Your task to perform on an android device: What's the weather? Image 0: 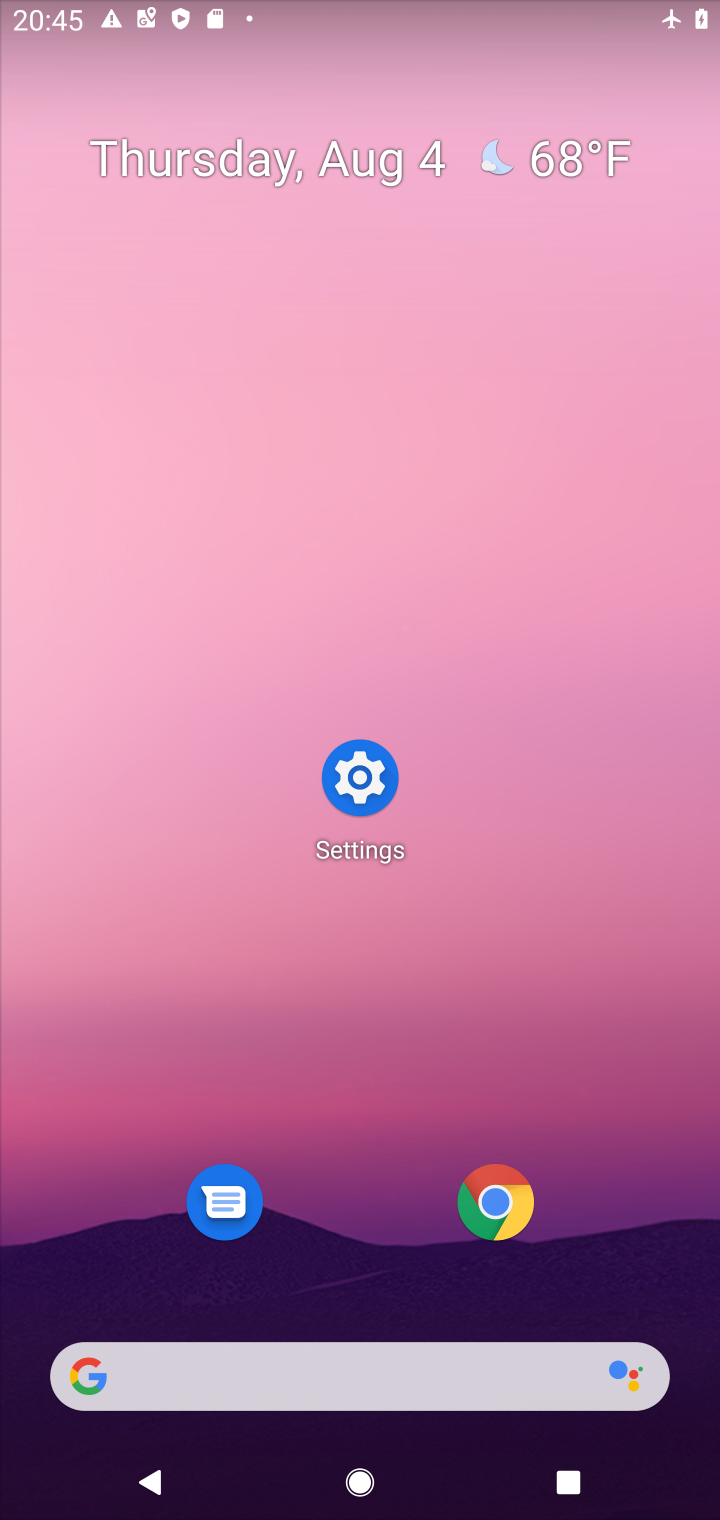
Step 0: drag from (363, 1255) to (398, 358)
Your task to perform on an android device: What's the weather? Image 1: 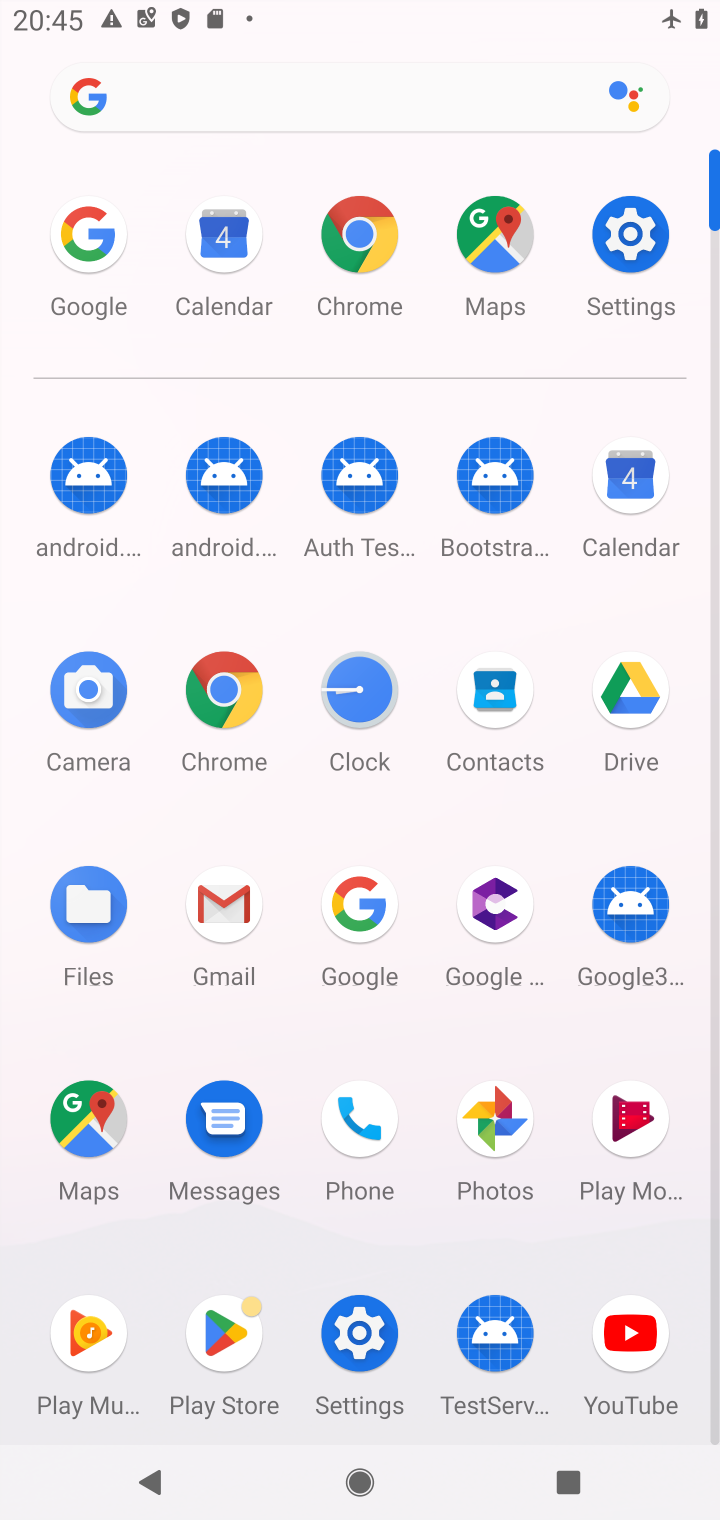
Step 1: click (372, 897)
Your task to perform on an android device: What's the weather? Image 2: 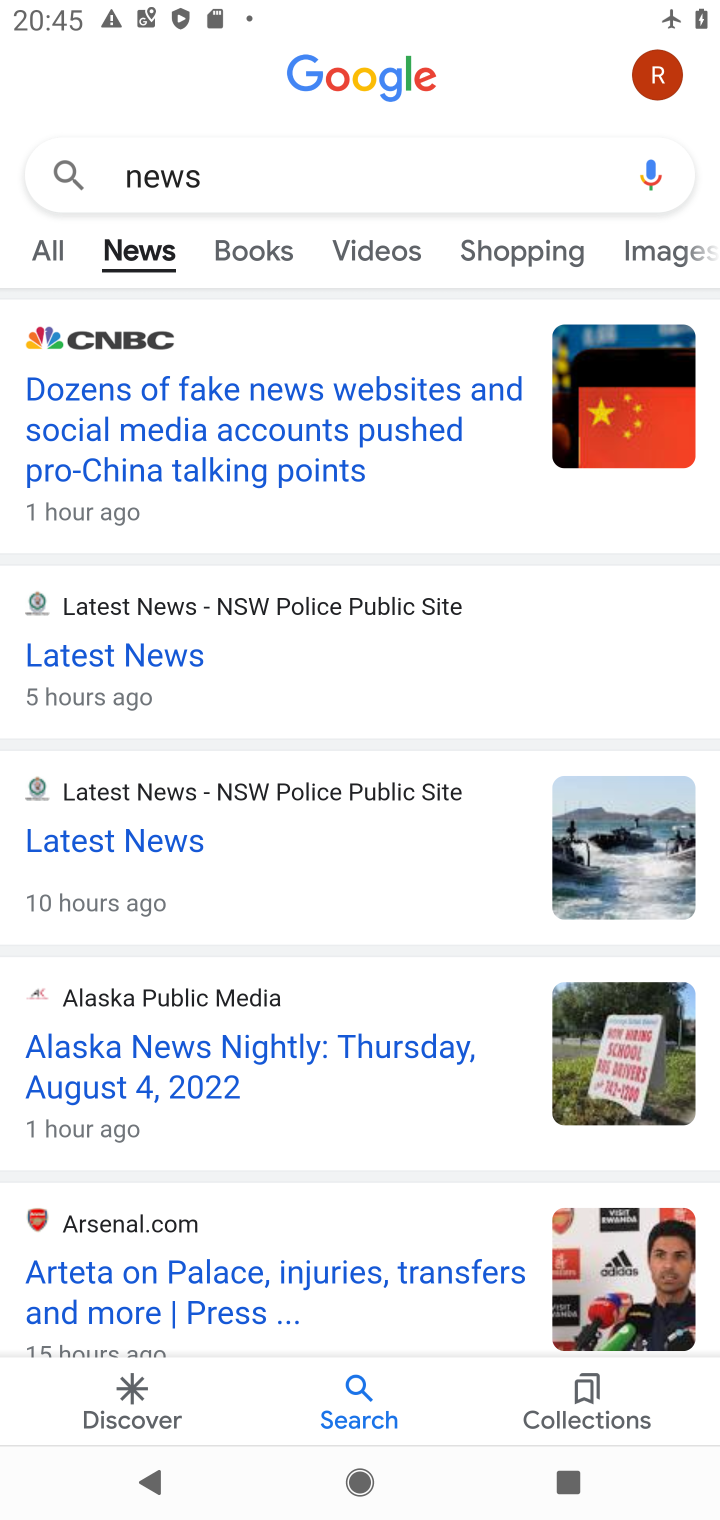
Step 2: click (321, 162)
Your task to perform on an android device: What's the weather? Image 3: 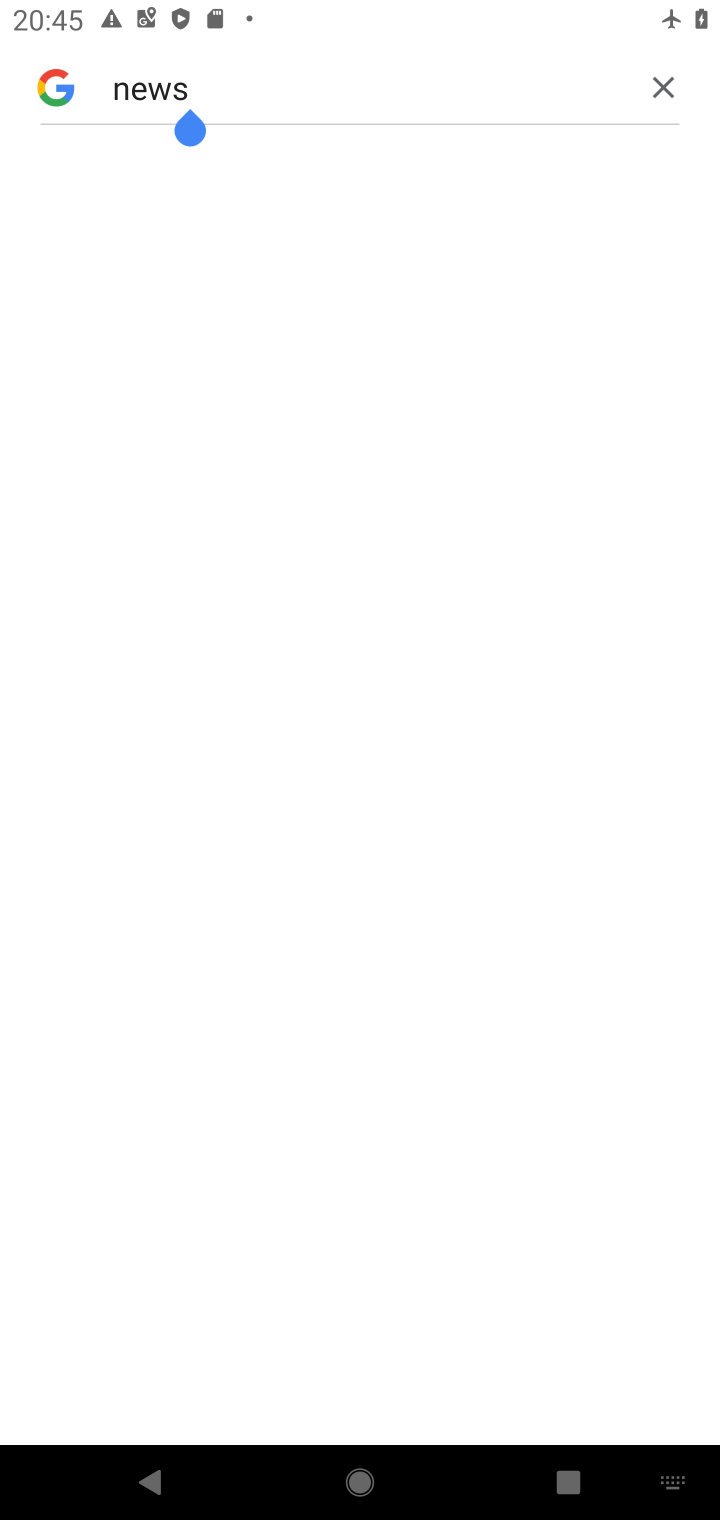
Step 3: click (675, 97)
Your task to perform on an android device: What's the weather? Image 4: 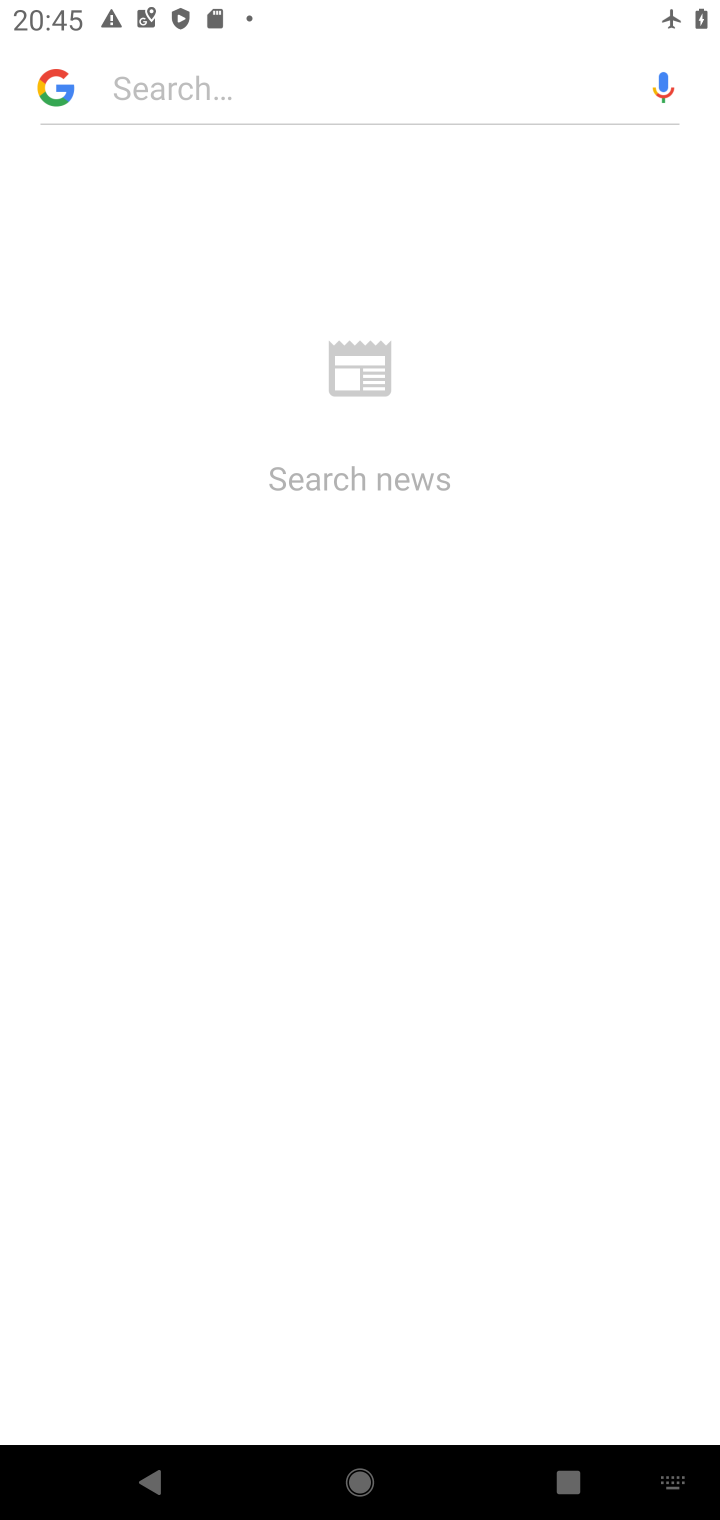
Step 4: type "weather"
Your task to perform on an android device: What's the weather? Image 5: 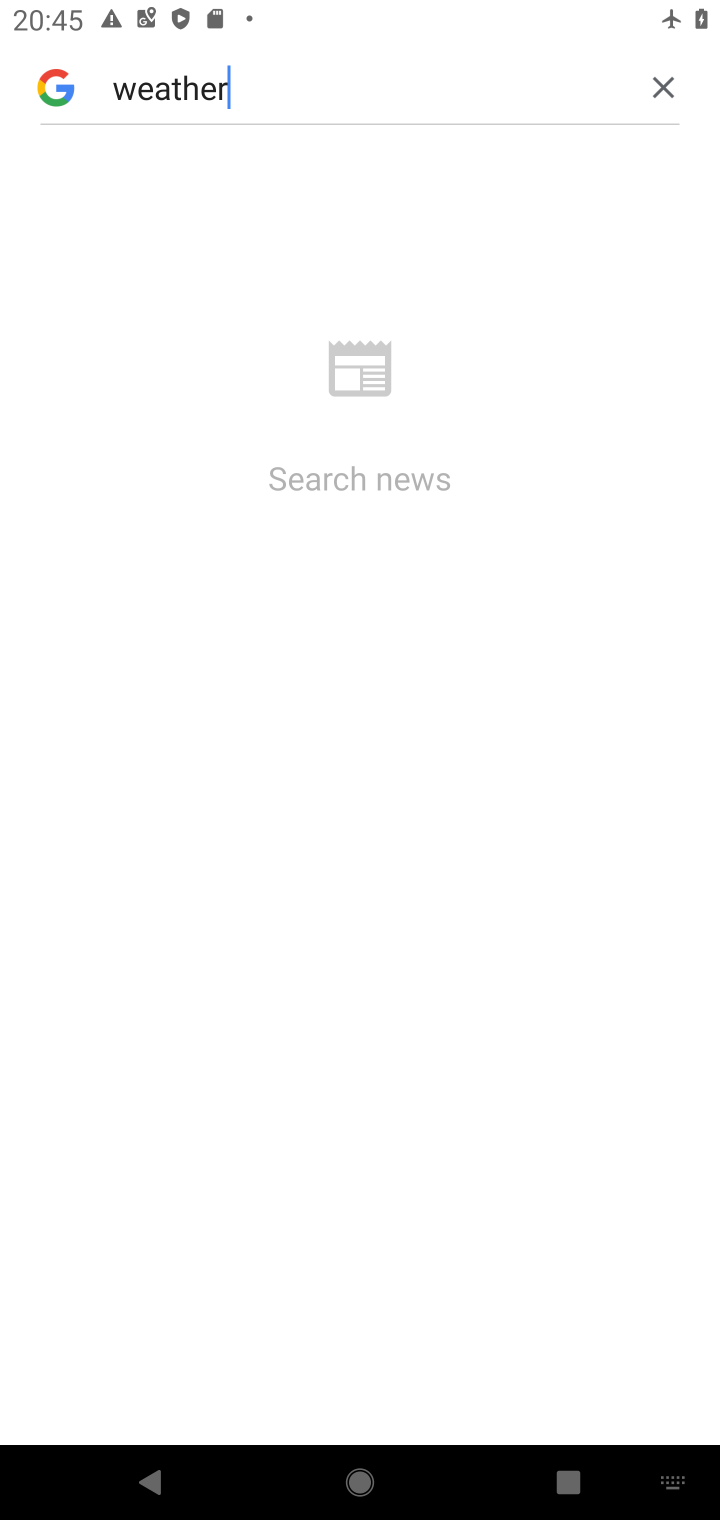
Step 5: type ""
Your task to perform on an android device: What's the weather? Image 6: 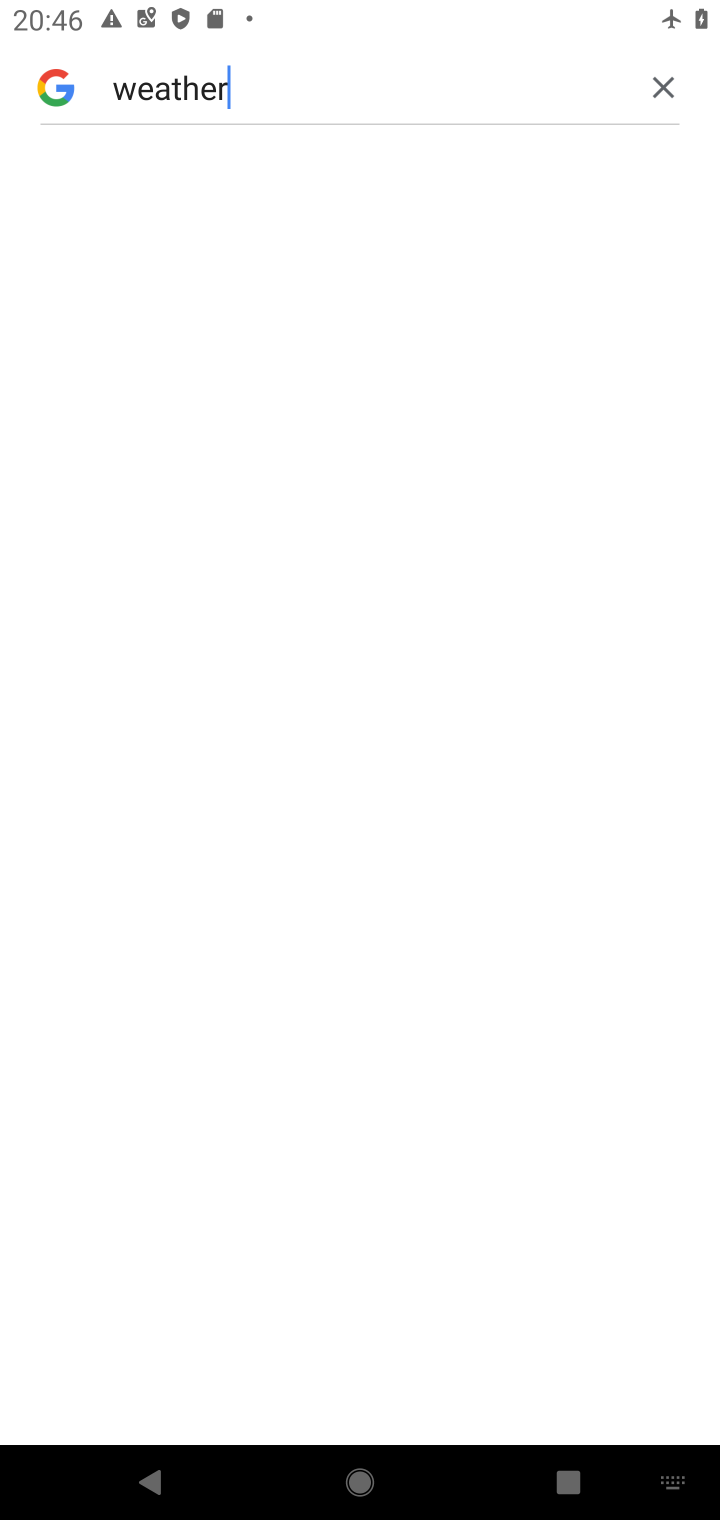
Step 6: task complete